Your task to perform on an android device: turn on priority inbox in the gmail app Image 0: 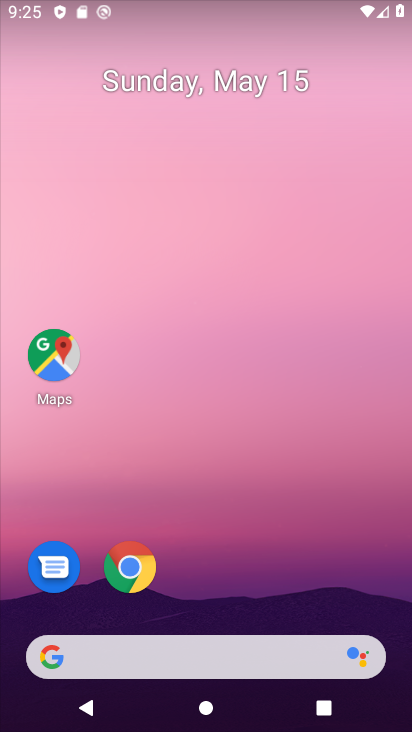
Step 0: drag from (256, 598) to (261, 146)
Your task to perform on an android device: turn on priority inbox in the gmail app Image 1: 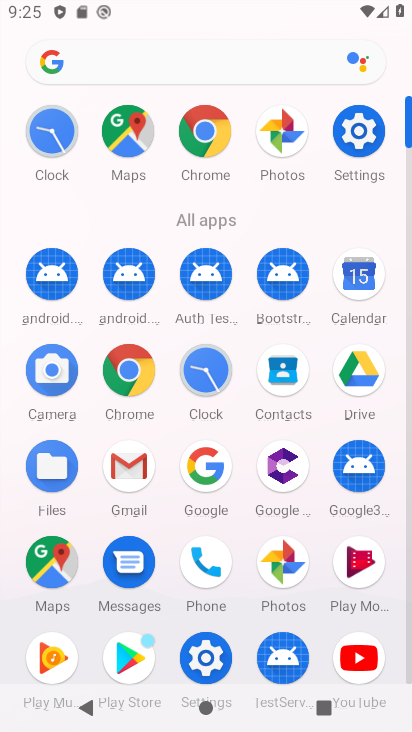
Step 1: click (124, 473)
Your task to perform on an android device: turn on priority inbox in the gmail app Image 2: 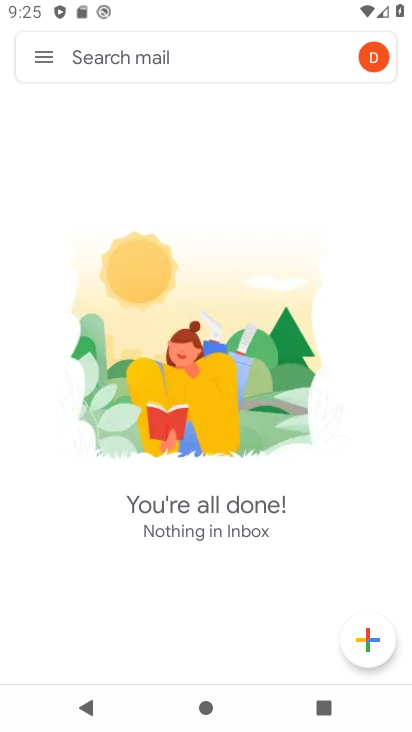
Step 2: click (46, 58)
Your task to perform on an android device: turn on priority inbox in the gmail app Image 3: 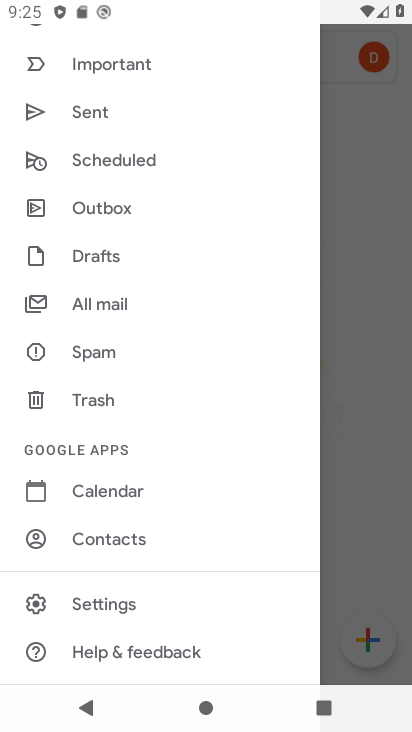
Step 3: click (144, 604)
Your task to perform on an android device: turn on priority inbox in the gmail app Image 4: 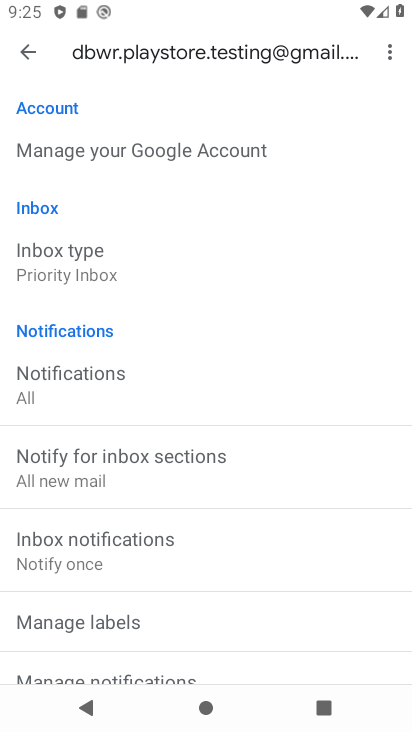
Step 4: task complete